Your task to perform on an android device: What's the weather? Image 0: 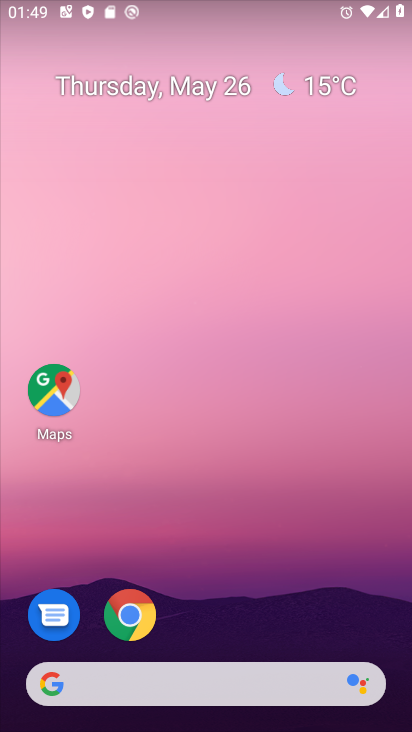
Step 0: click (191, 682)
Your task to perform on an android device: What's the weather? Image 1: 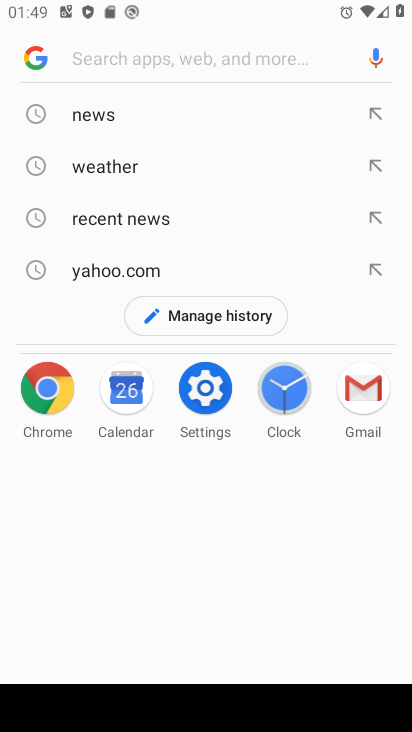
Step 1: click (126, 167)
Your task to perform on an android device: What's the weather? Image 2: 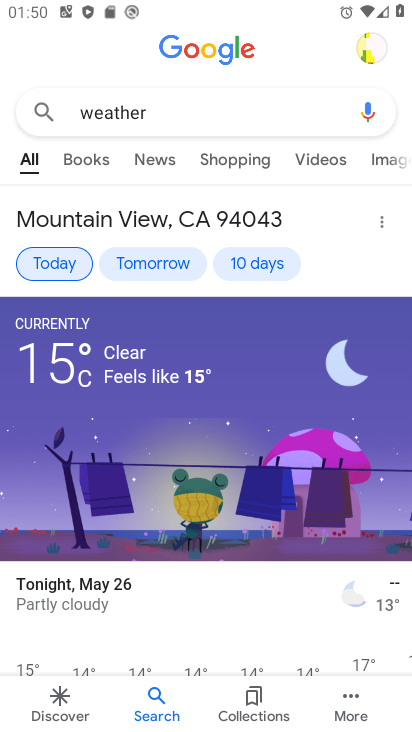
Step 2: task complete